Your task to perform on an android device: change notification settings in the gmail app Image 0: 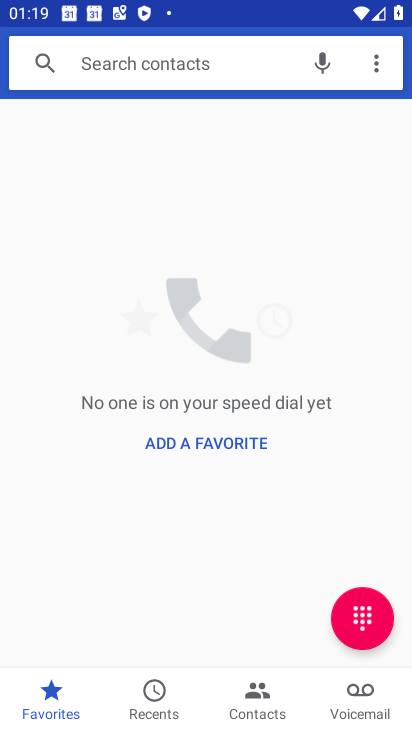
Step 0: press home button
Your task to perform on an android device: change notification settings in the gmail app Image 1: 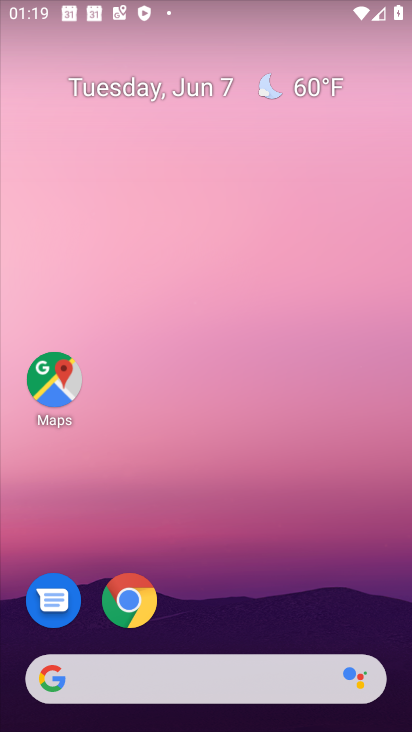
Step 1: drag from (261, 691) to (227, 91)
Your task to perform on an android device: change notification settings in the gmail app Image 2: 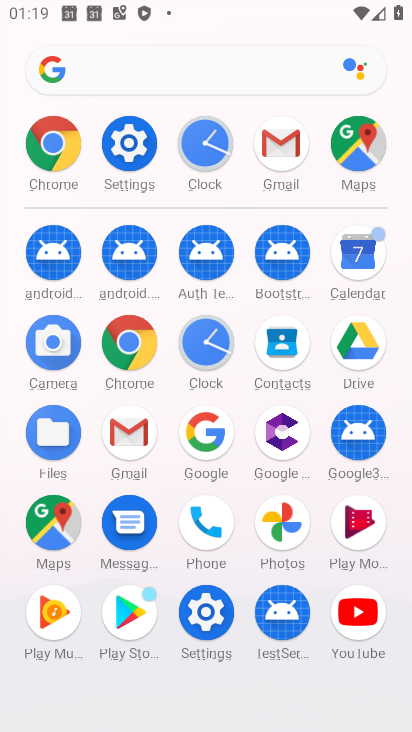
Step 2: click (138, 437)
Your task to perform on an android device: change notification settings in the gmail app Image 3: 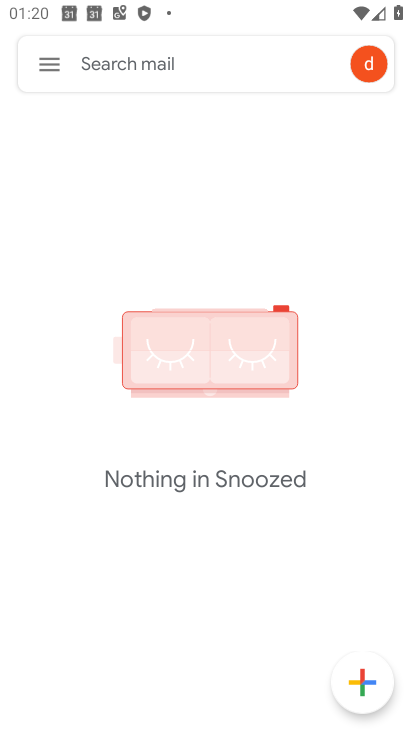
Step 3: click (53, 65)
Your task to perform on an android device: change notification settings in the gmail app Image 4: 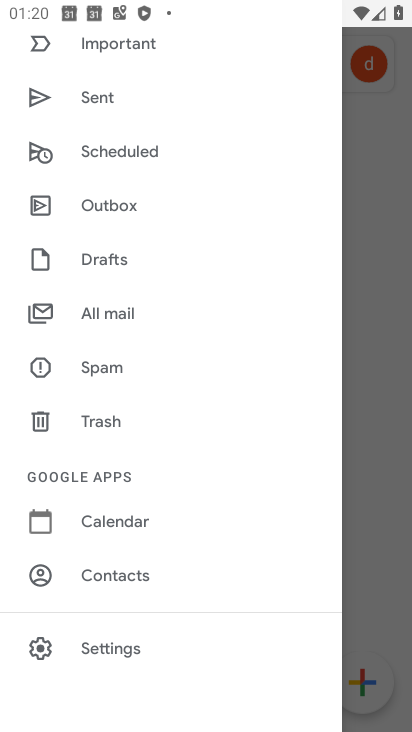
Step 4: click (111, 648)
Your task to perform on an android device: change notification settings in the gmail app Image 5: 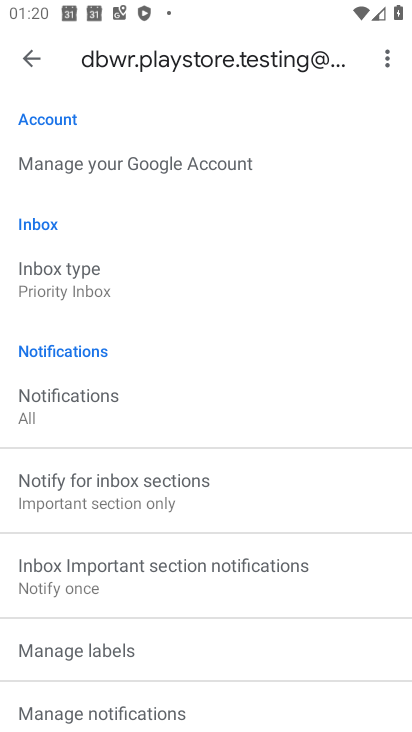
Step 5: click (78, 396)
Your task to perform on an android device: change notification settings in the gmail app Image 6: 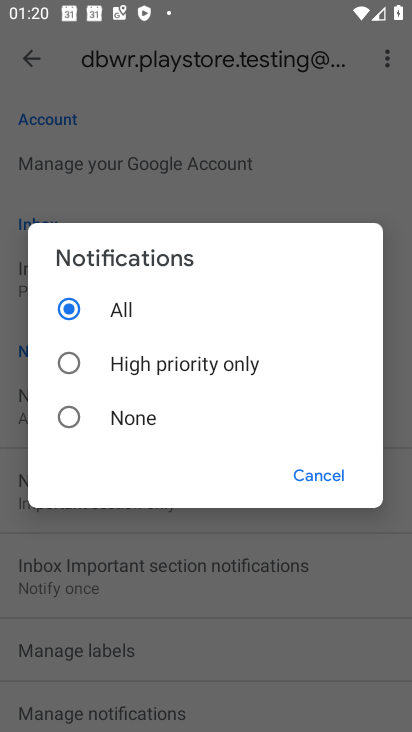
Step 6: click (66, 415)
Your task to perform on an android device: change notification settings in the gmail app Image 7: 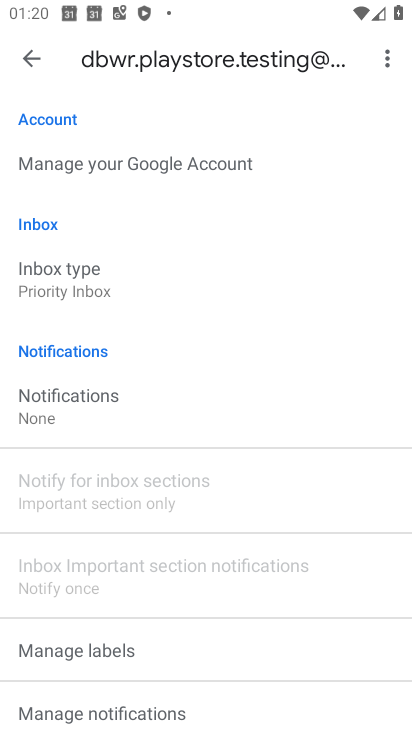
Step 7: task complete